Your task to perform on an android device: Open the calendar app, open the side menu, and click the "Day" option Image 0: 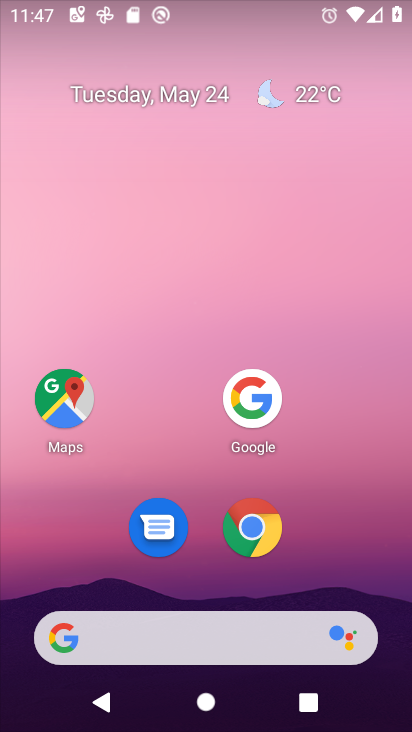
Step 0: drag from (233, 638) to (280, 113)
Your task to perform on an android device: Open the calendar app, open the side menu, and click the "Day" option Image 1: 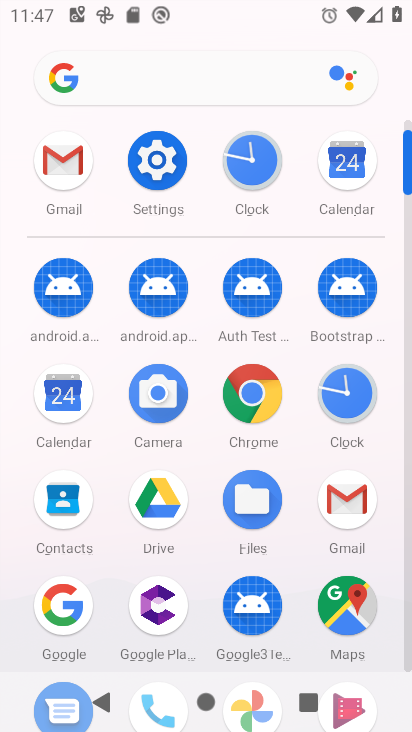
Step 1: click (70, 405)
Your task to perform on an android device: Open the calendar app, open the side menu, and click the "Day" option Image 2: 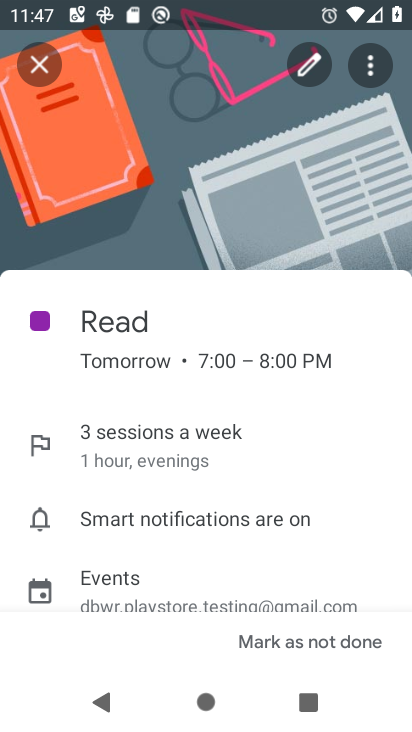
Step 2: click (28, 65)
Your task to perform on an android device: Open the calendar app, open the side menu, and click the "Day" option Image 3: 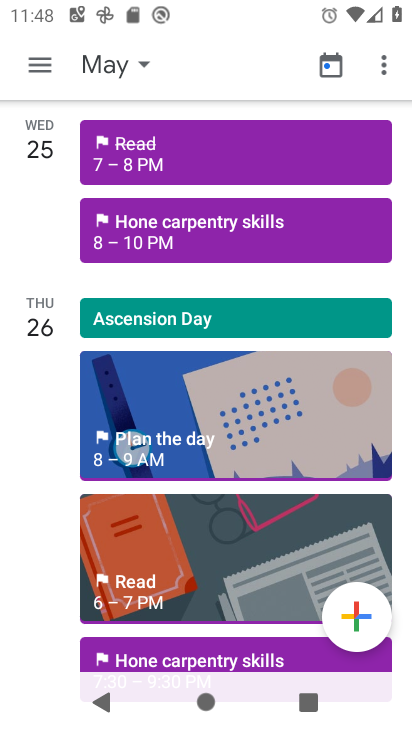
Step 3: click (44, 68)
Your task to perform on an android device: Open the calendar app, open the side menu, and click the "Day" option Image 4: 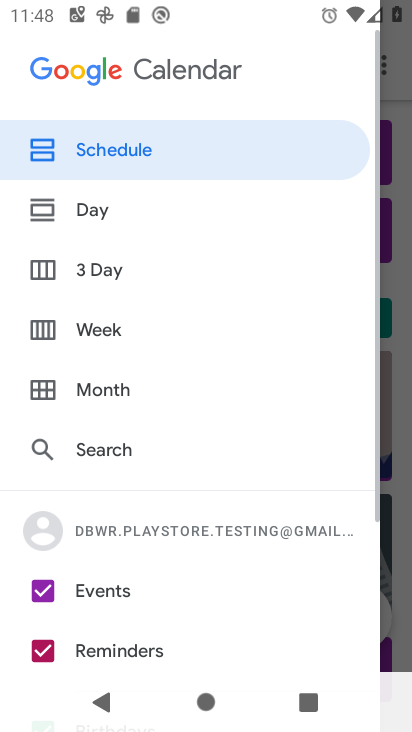
Step 4: click (78, 206)
Your task to perform on an android device: Open the calendar app, open the side menu, and click the "Day" option Image 5: 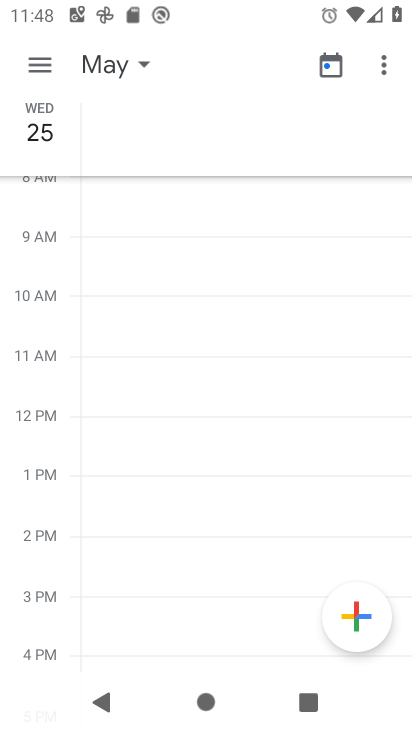
Step 5: task complete